Your task to perform on an android device: check battery use Image 0: 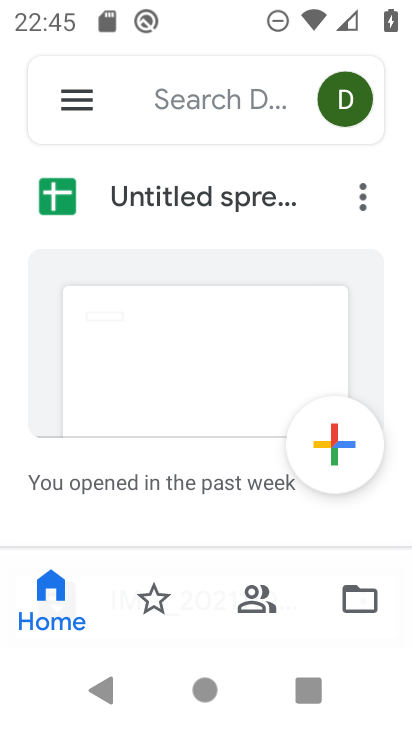
Step 0: press home button
Your task to perform on an android device: check battery use Image 1: 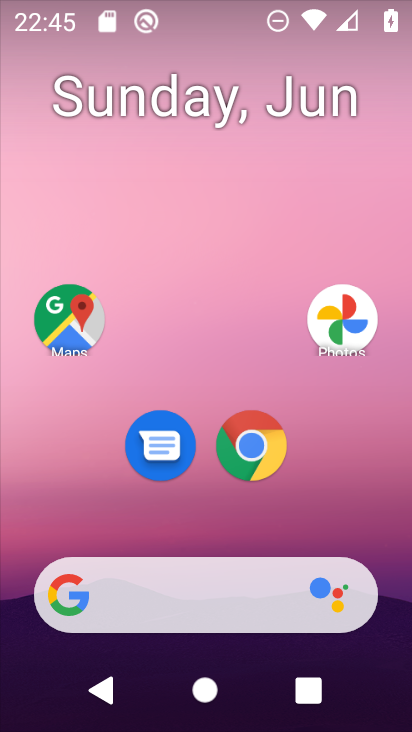
Step 1: drag from (265, 525) to (242, 159)
Your task to perform on an android device: check battery use Image 2: 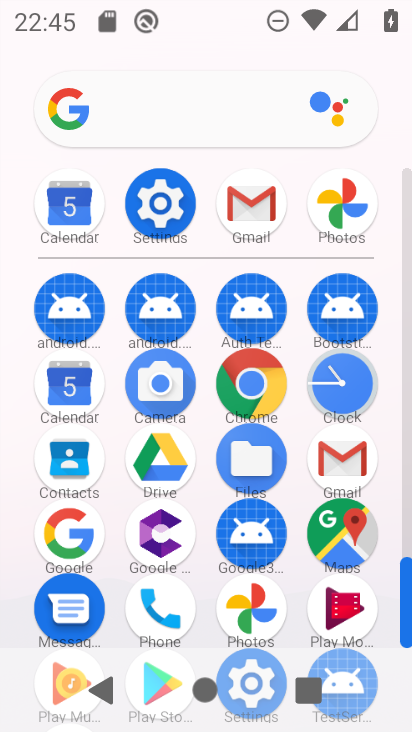
Step 2: click (160, 197)
Your task to perform on an android device: check battery use Image 3: 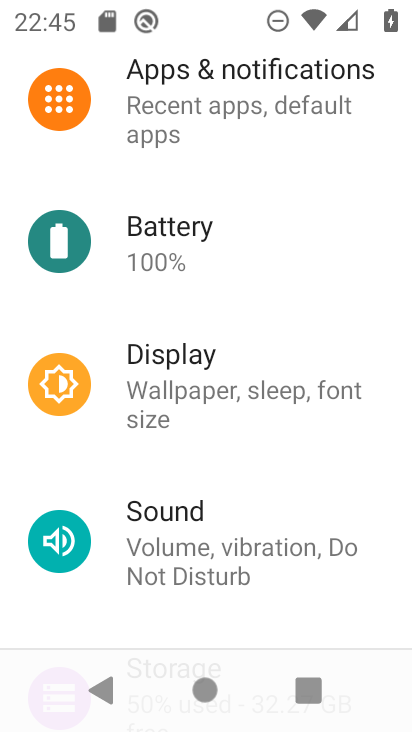
Step 3: click (160, 226)
Your task to perform on an android device: check battery use Image 4: 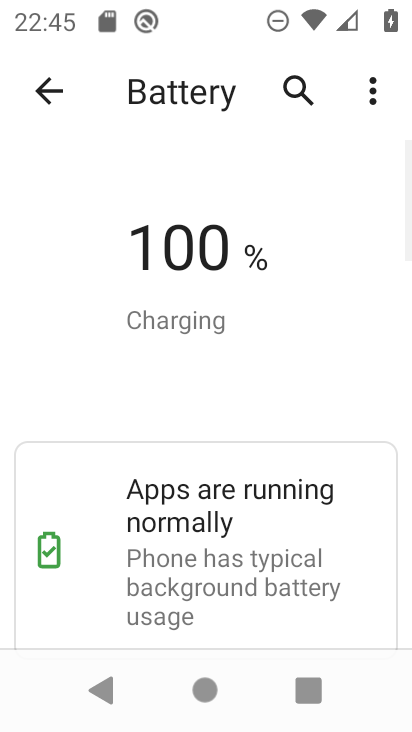
Step 4: click (374, 86)
Your task to perform on an android device: check battery use Image 5: 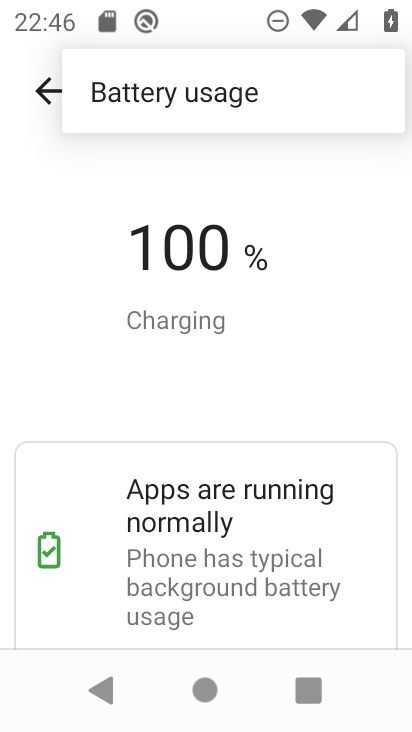
Step 5: click (190, 96)
Your task to perform on an android device: check battery use Image 6: 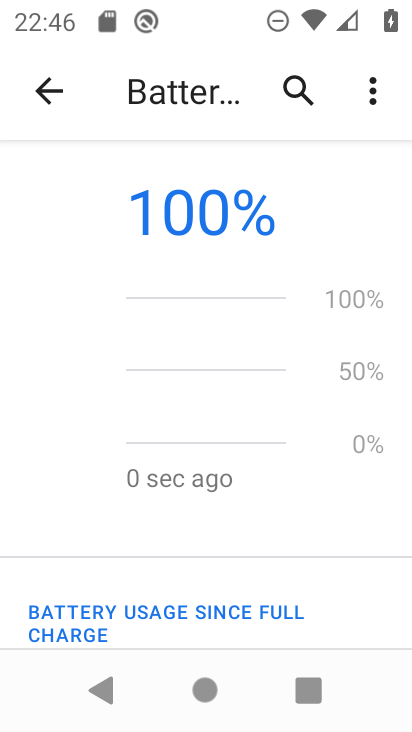
Step 6: task complete